Your task to perform on an android device: Set the phone to "Do not disturb". Image 0: 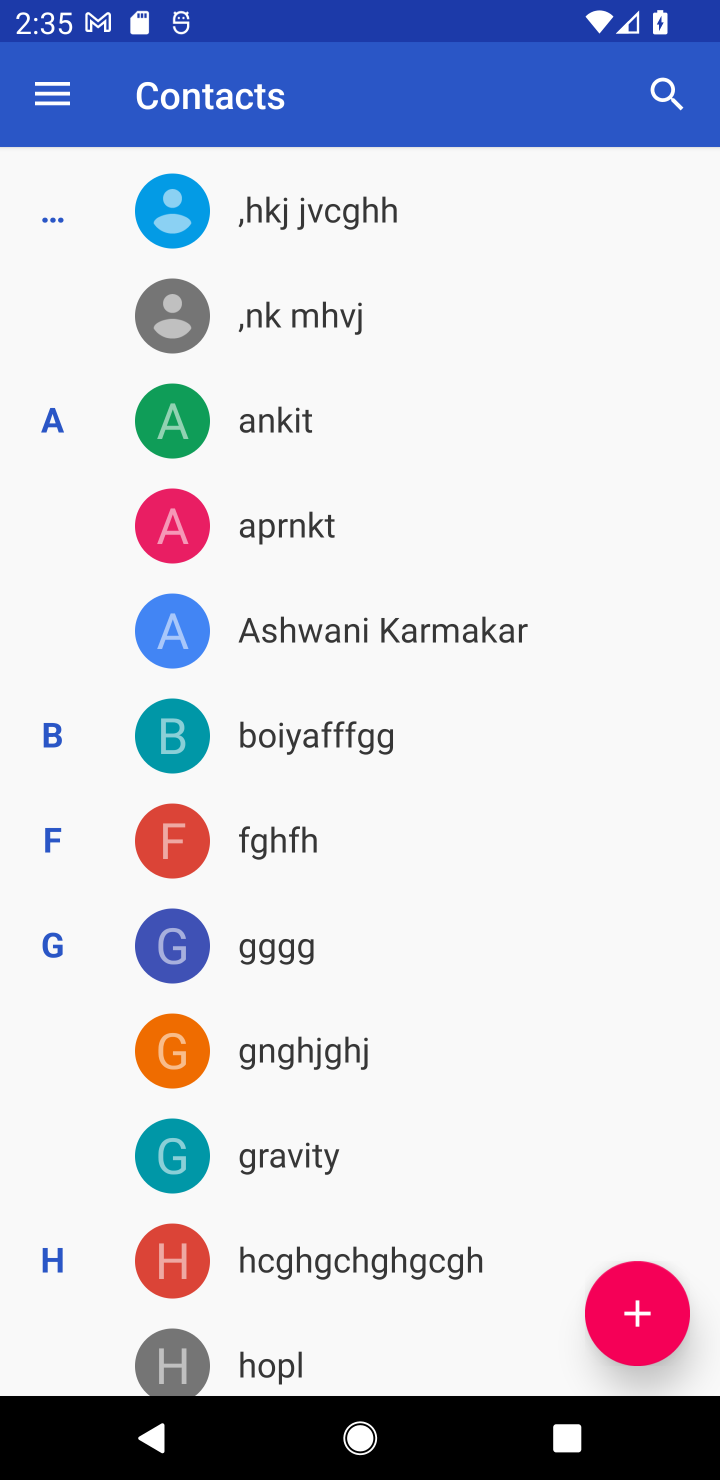
Step 0: press home button
Your task to perform on an android device: Set the phone to "Do not disturb". Image 1: 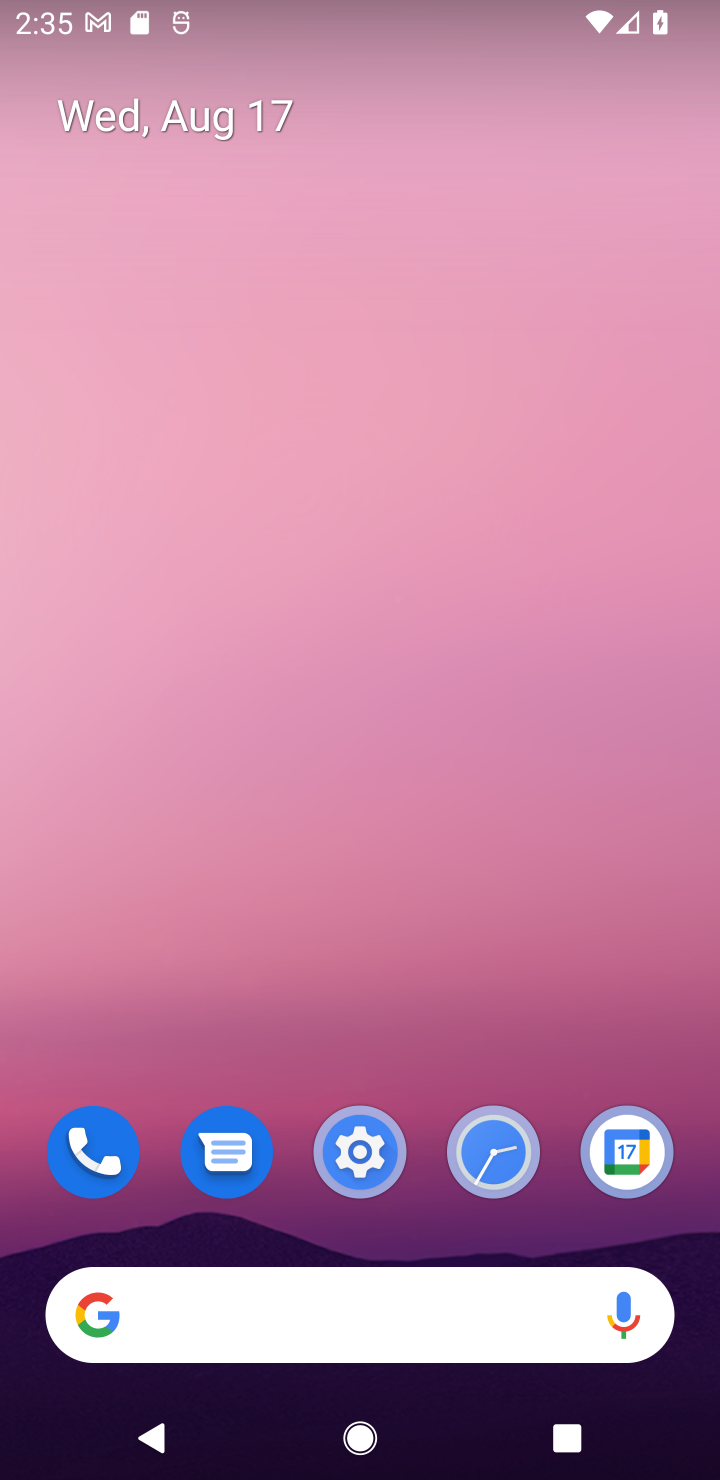
Step 1: drag from (379, 13) to (348, 906)
Your task to perform on an android device: Set the phone to "Do not disturb". Image 2: 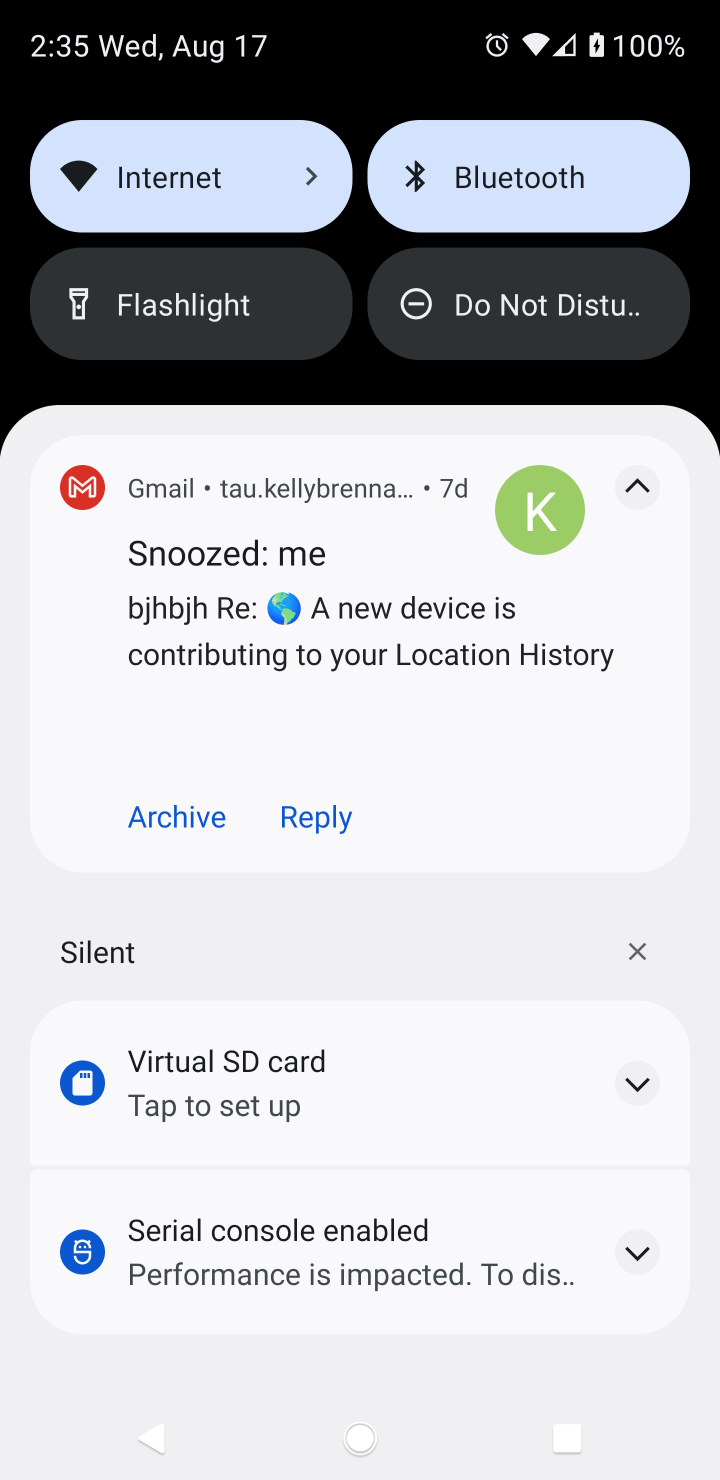
Step 2: drag from (360, 262) to (397, 1122)
Your task to perform on an android device: Set the phone to "Do not disturb". Image 3: 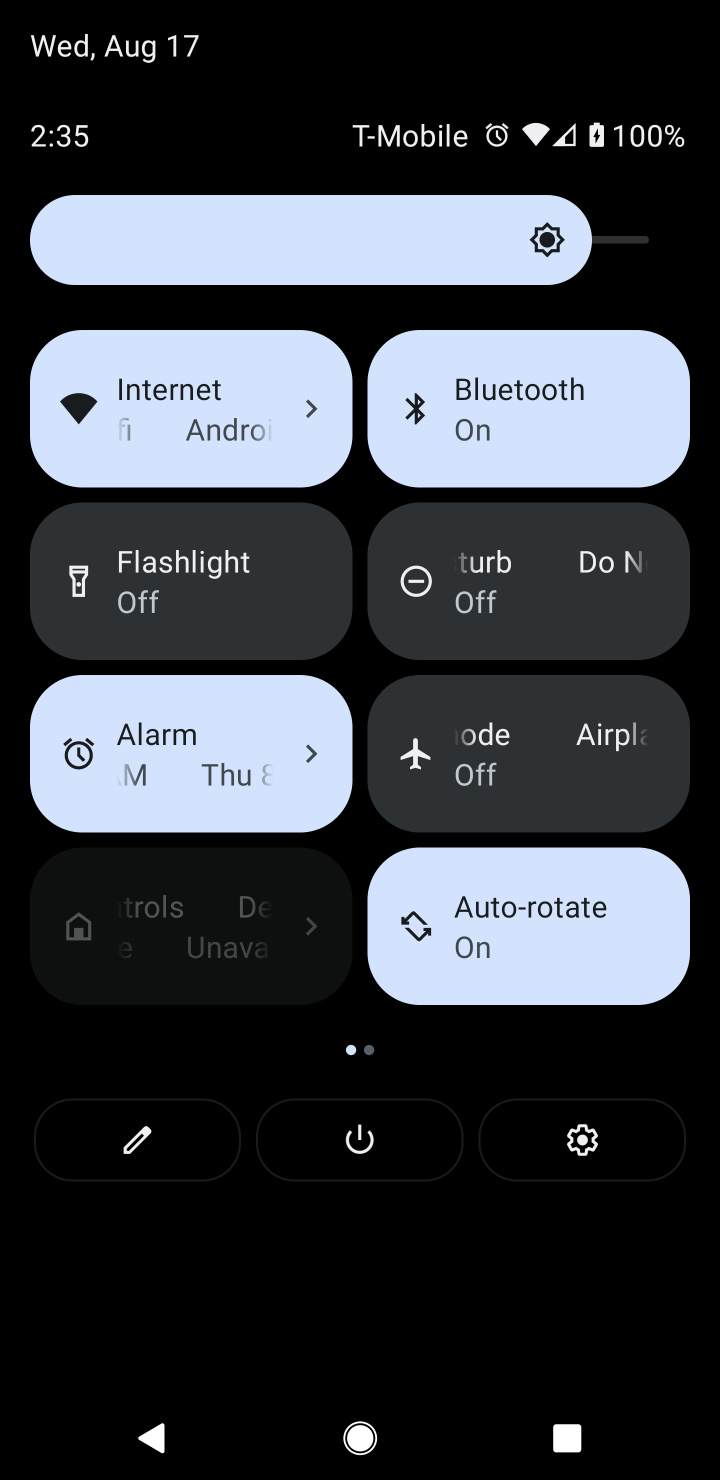
Step 3: click (526, 584)
Your task to perform on an android device: Set the phone to "Do not disturb". Image 4: 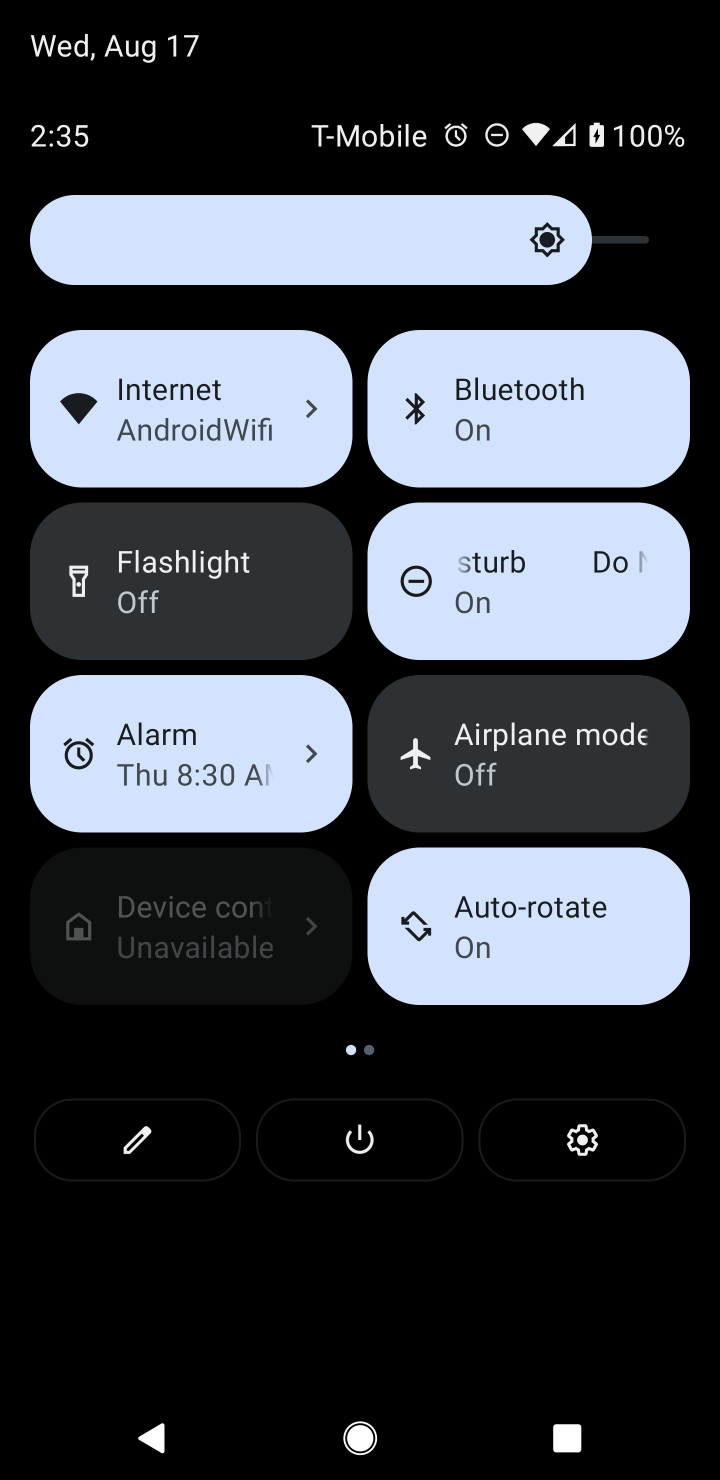
Step 4: task complete